Your task to perform on an android device: Open location settings Image 0: 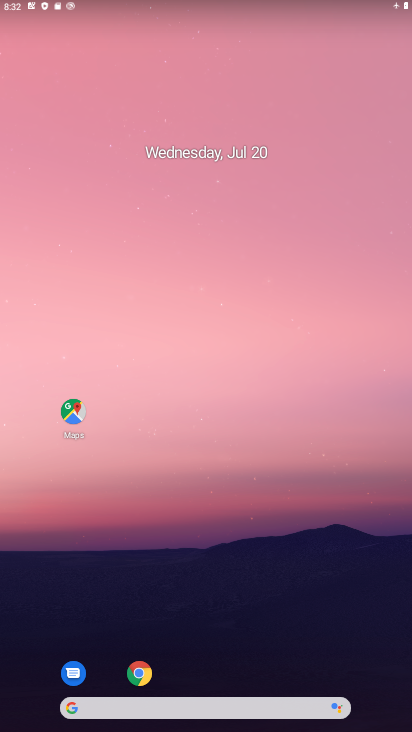
Step 0: drag from (214, 730) to (209, 300)
Your task to perform on an android device: Open location settings Image 1: 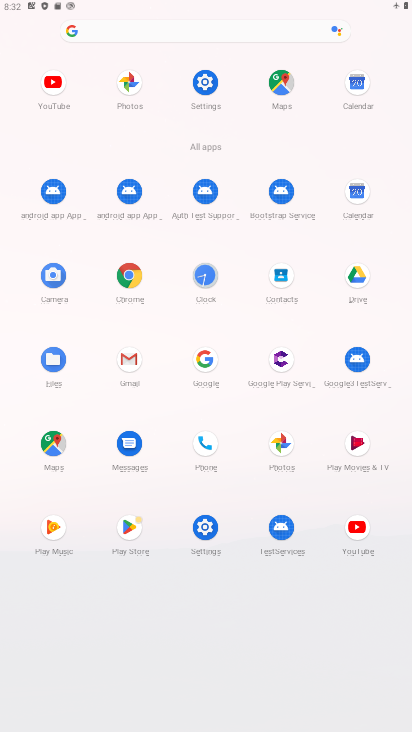
Step 1: click (198, 79)
Your task to perform on an android device: Open location settings Image 2: 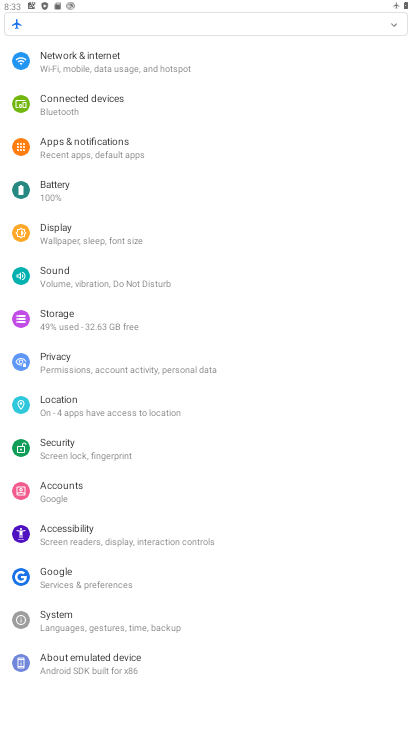
Step 2: click (50, 409)
Your task to perform on an android device: Open location settings Image 3: 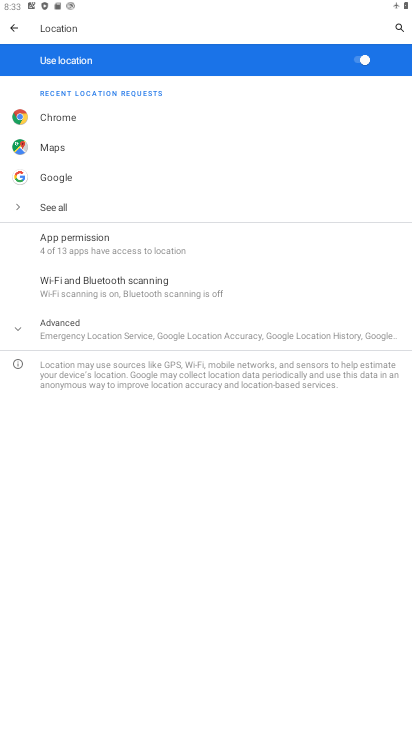
Step 3: task complete